Your task to perform on an android device: toggle notification dots Image 0: 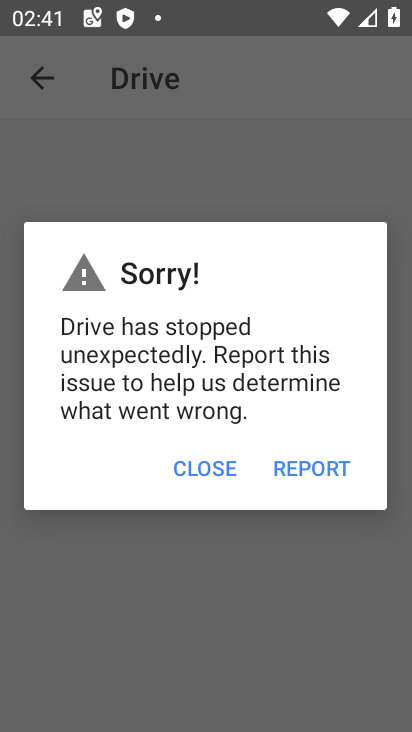
Step 0: press home button
Your task to perform on an android device: toggle notification dots Image 1: 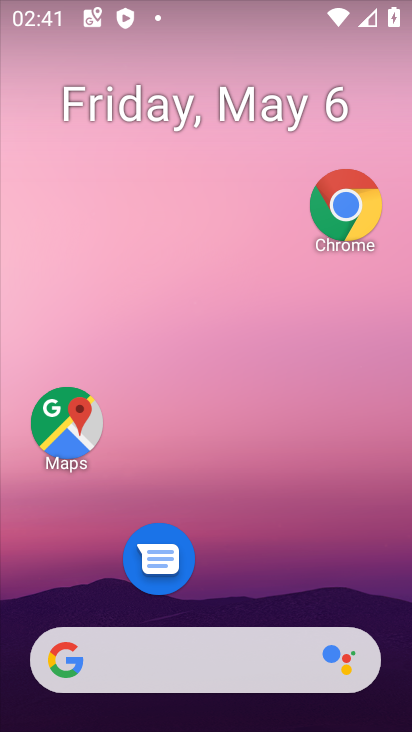
Step 1: drag from (170, 659) to (351, 19)
Your task to perform on an android device: toggle notification dots Image 2: 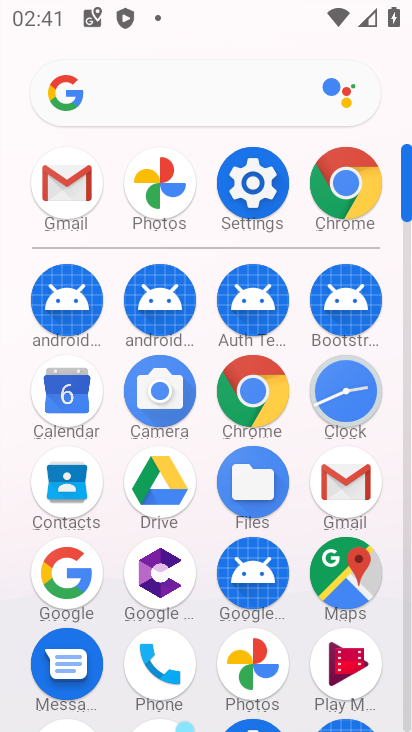
Step 2: click (249, 203)
Your task to perform on an android device: toggle notification dots Image 3: 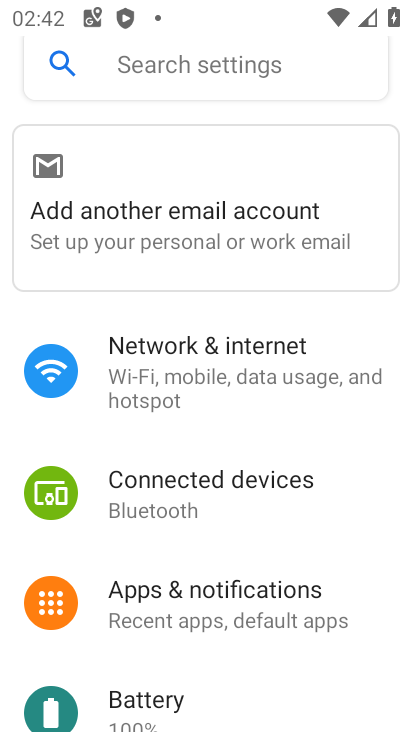
Step 3: click (244, 587)
Your task to perform on an android device: toggle notification dots Image 4: 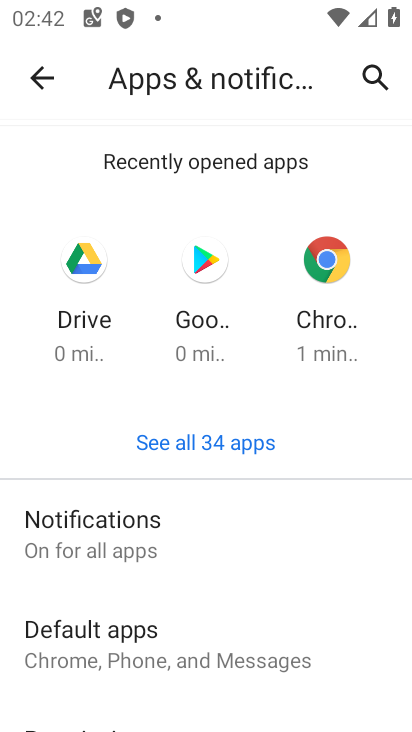
Step 4: click (111, 542)
Your task to perform on an android device: toggle notification dots Image 5: 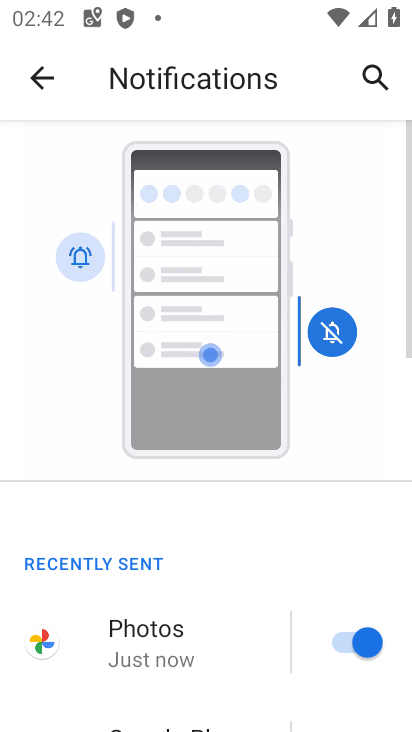
Step 5: drag from (185, 616) to (387, 42)
Your task to perform on an android device: toggle notification dots Image 6: 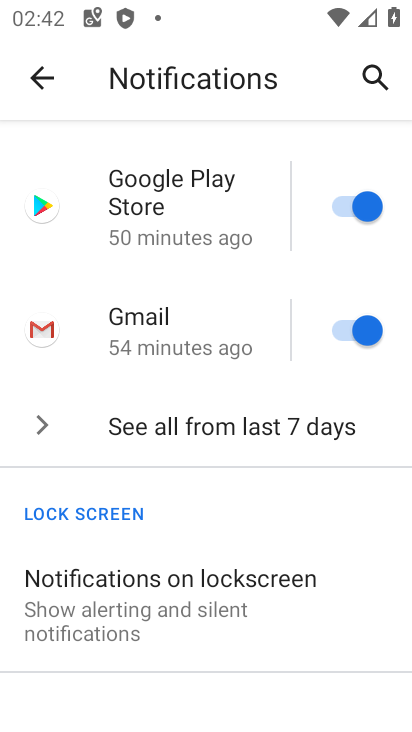
Step 6: drag from (195, 605) to (384, 147)
Your task to perform on an android device: toggle notification dots Image 7: 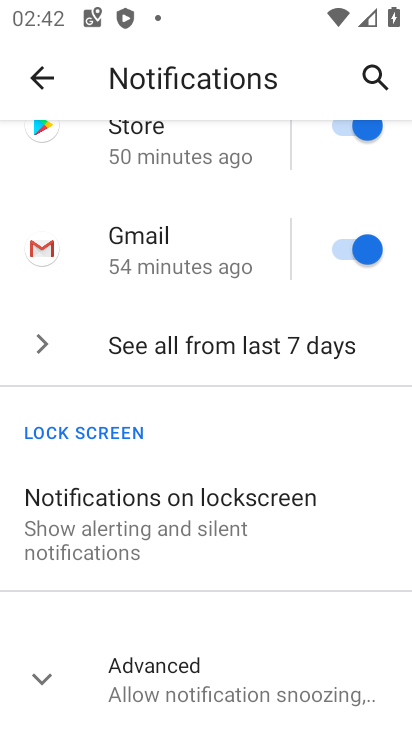
Step 7: click (175, 667)
Your task to perform on an android device: toggle notification dots Image 8: 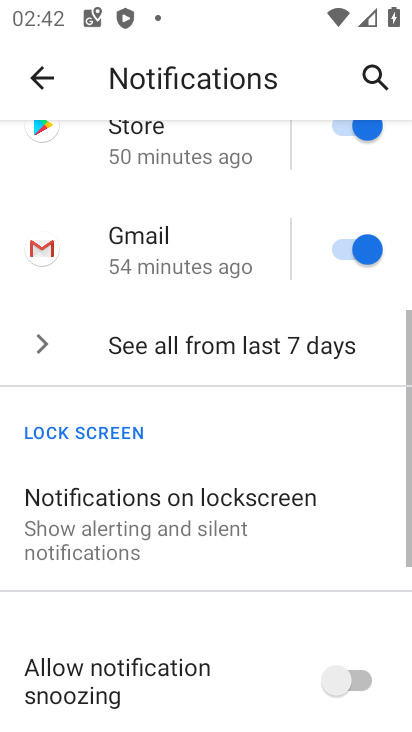
Step 8: drag from (210, 626) to (371, 86)
Your task to perform on an android device: toggle notification dots Image 9: 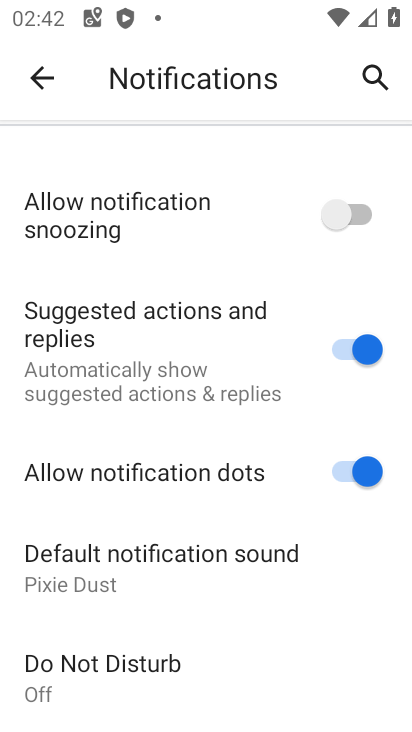
Step 9: click (343, 472)
Your task to perform on an android device: toggle notification dots Image 10: 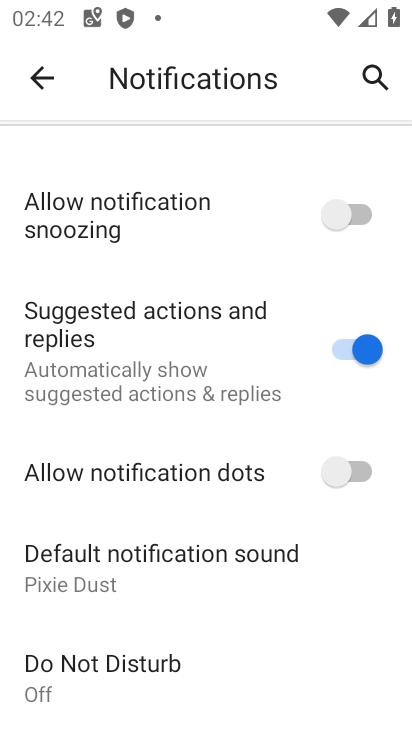
Step 10: task complete